Your task to perform on an android device: Go to notification settings Image 0: 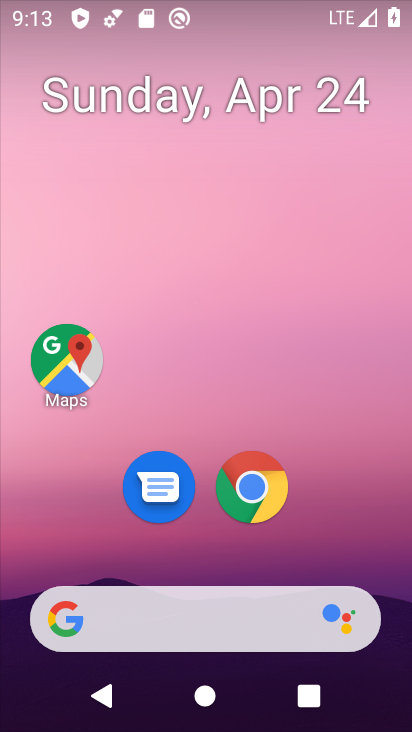
Step 0: drag from (339, 542) to (342, 92)
Your task to perform on an android device: Go to notification settings Image 1: 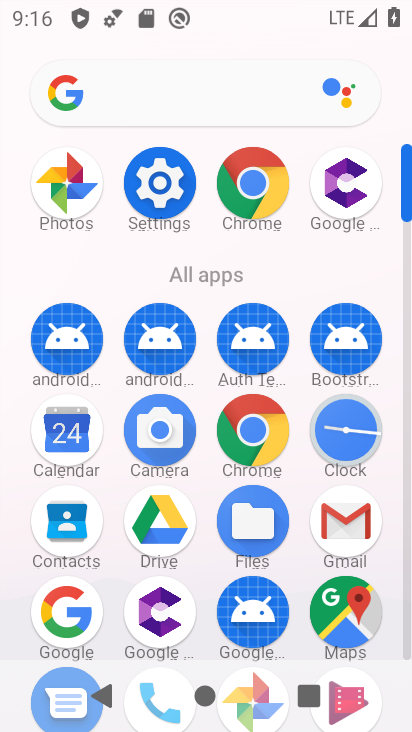
Step 1: click (153, 183)
Your task to perform on an android device: Go to notification settings Image 2: 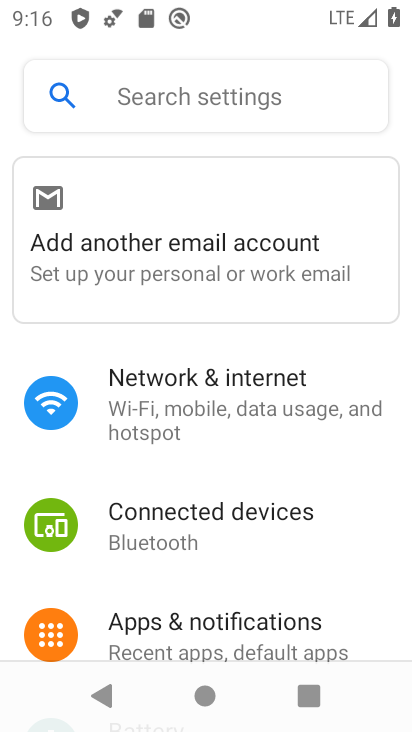
Step 2: click (248, 626)
Your task to perform on an android device: Go to notification settings Image 3: 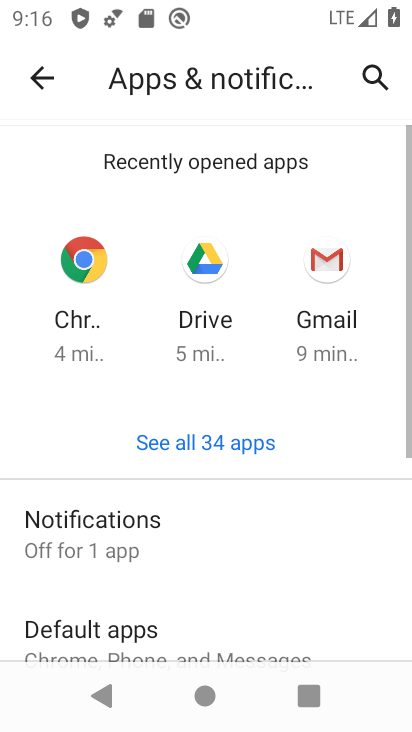
Step 3: task complete